Your task to perform on an android device: Show me popular videos on Youtube Image 0: 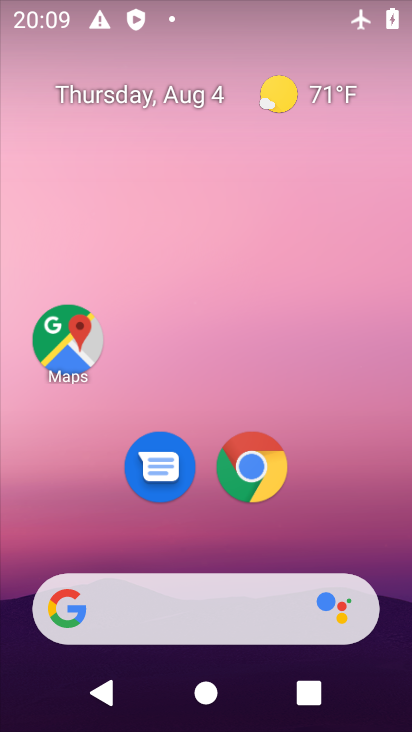
Step 0: press home button
Your task to perform on an android device: Show me popular videos on Youtube Image 1: 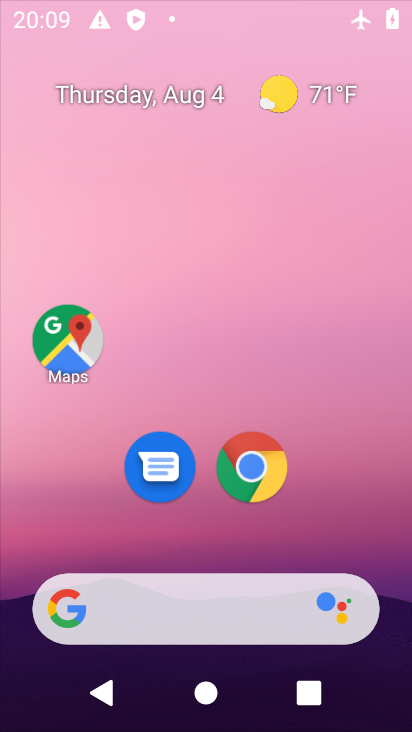
Step 1: drag from (293, 521) to (329, 45)
Your task to perform on an android device: Show me popular videos on Youtube Image 2: 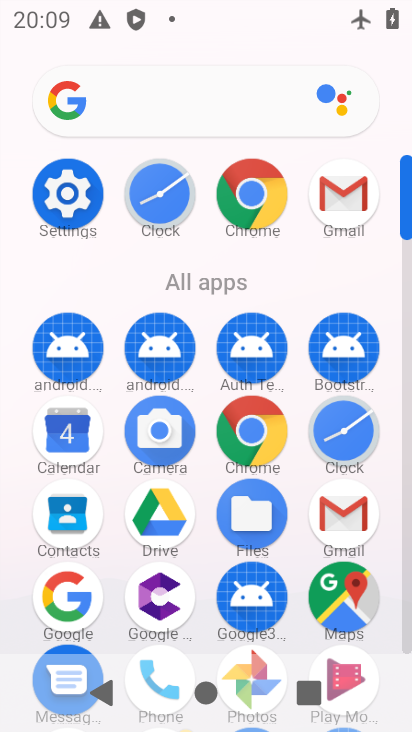
Step 2: drag from (308, 616) to (303, 172)
Your task to perform on an android device: Show me popular videos on Youtube Image 3: 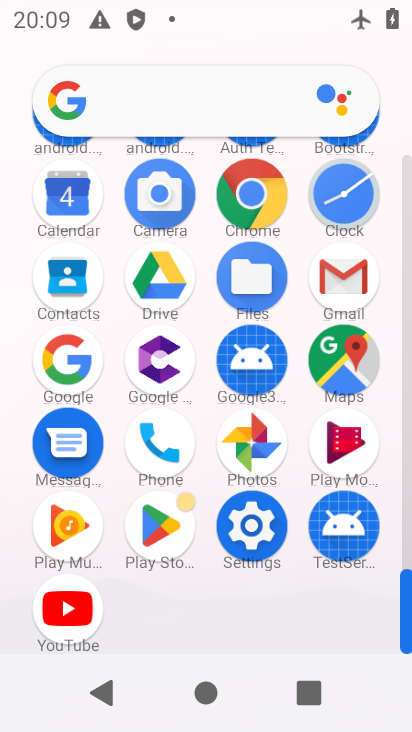
Step 3: click (49, 642)
Your task to perform on an android device: Show me popular videos on Youtube Image 4: 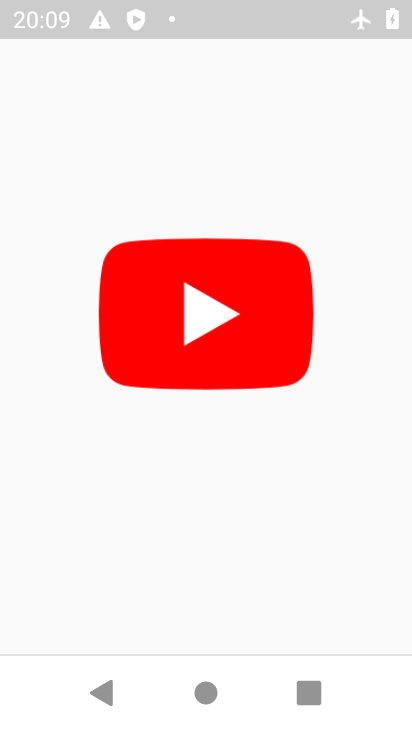
Step 4: click (210, 324)
Your task to perform on an android device: Show me popular videos on Youtube Image 5: 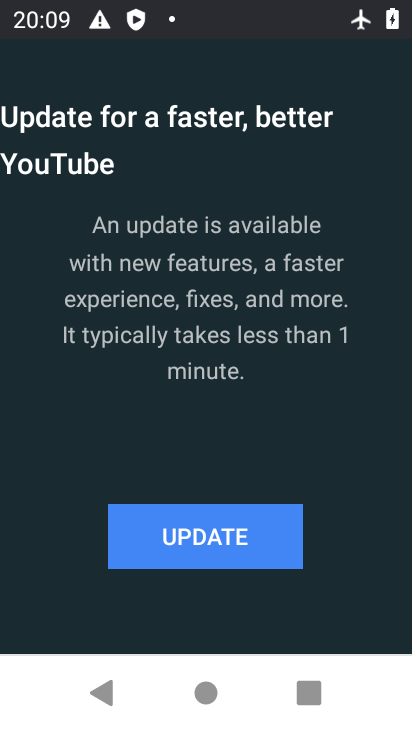
Step 5: click (197, 536)
Your task to perform on an android device: Show me popular videos on Youtube Image 6: 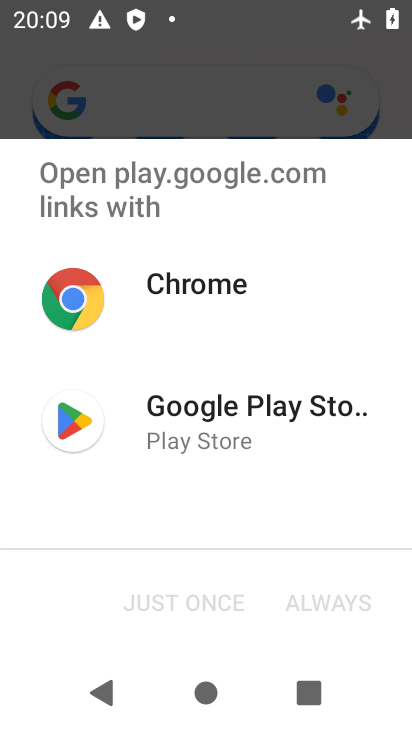
Step 6: click (238, 442)
Your task to perform on an android device: Show me popular videos on Youtube Image 7: 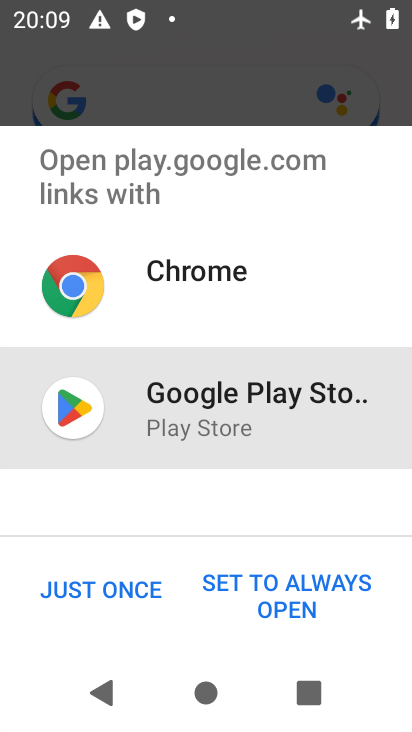
Step 7: click (133, 603)
Your task to perform on an android device: Show me popular videos on Youtube Image 8: 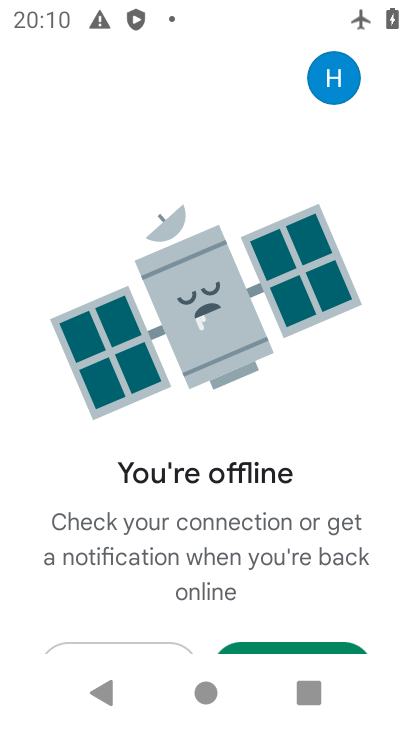
Step 8: drag from (230, 616) to (257, 275)
Your task to perform on an android device: Show me popular videos on Youtube Image 9: 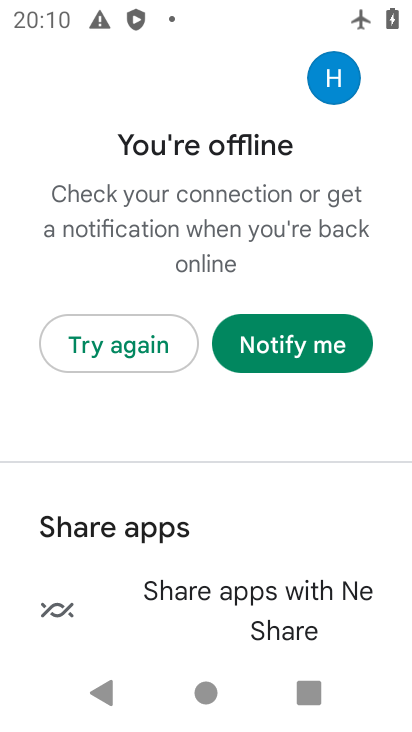
Step 9: press home button
Your task to perform on an android device: Show me popular videos on Youtube Image 10: 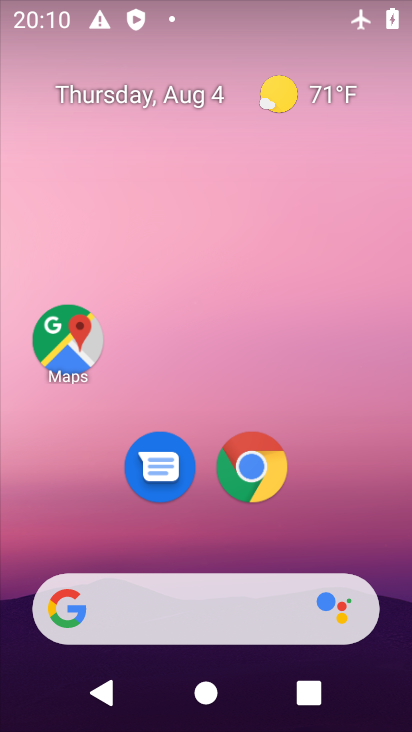
Step 10: drag from (204, 540) to (262, 66)
Your task to perform on an android device: Show me popular videos on Youtube Image 11: 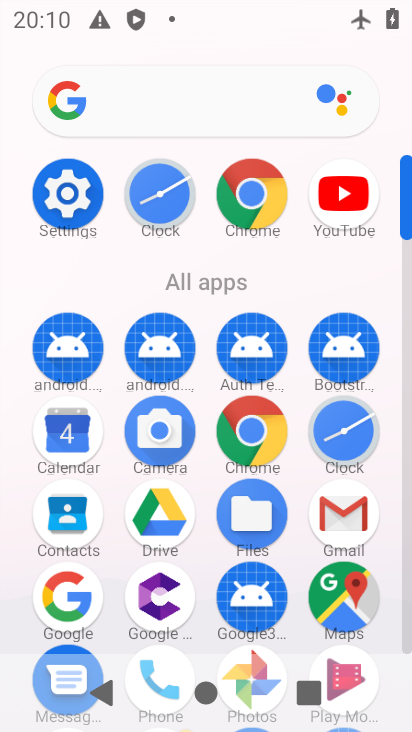
Step 11: click (352, 183)
Your task to perform on an android device: Show me popular videos on Youtube Image 12: 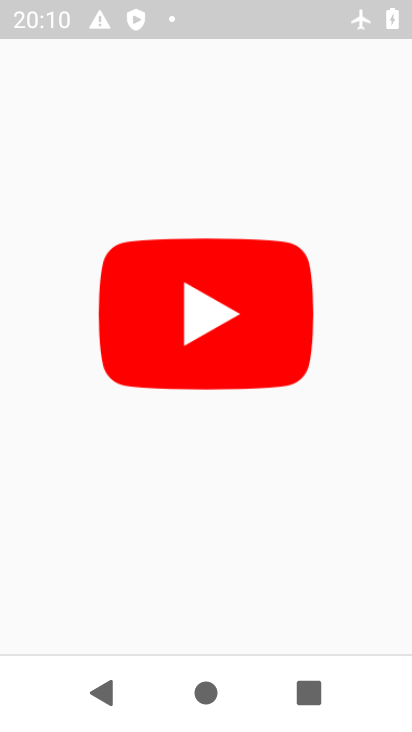
Step 12: drag from (354, 7) to (394, 558)
Your task to perform on an android device: Show me popular videos on Youtube Image 13: 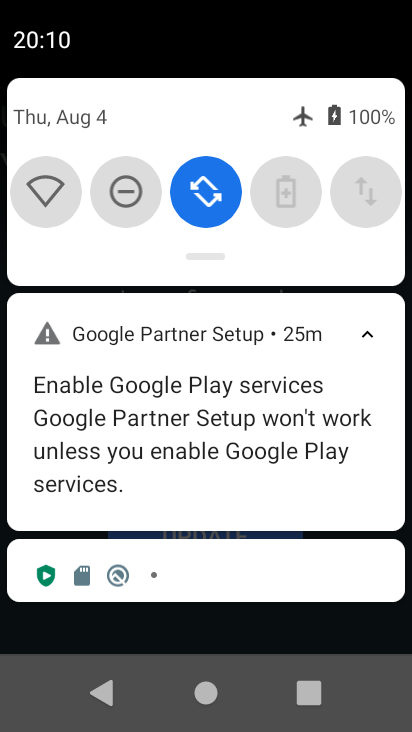
Step 13: drag from (204, 238) to (116, 721)
Your task to perform on an android device: Show me popular videos on Youtube Image 14: 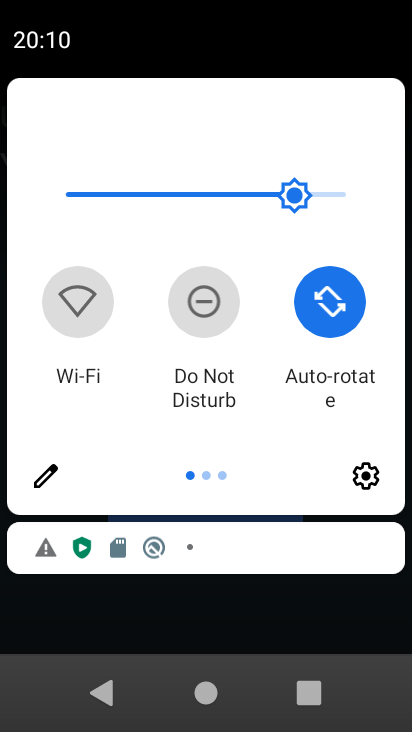
Step 14: drag from (404, 341) to (75, 277)
Your task to perform on an android device: Show me popular videos on Youtube Image 15: 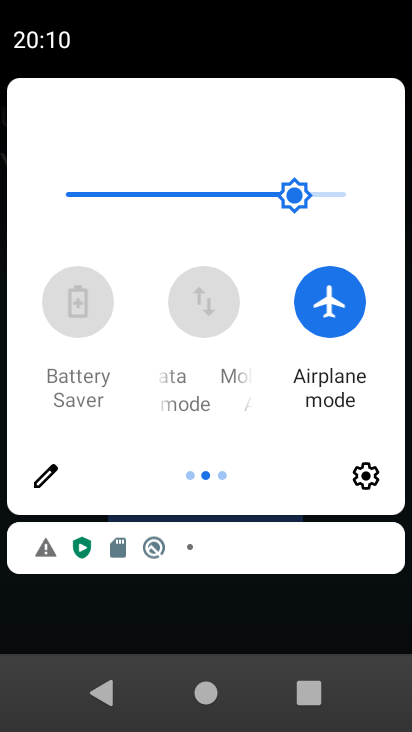
Step 15: click (338, 349)
Your task to perform on an android device: Show me popular videos on Youtube Image 16: 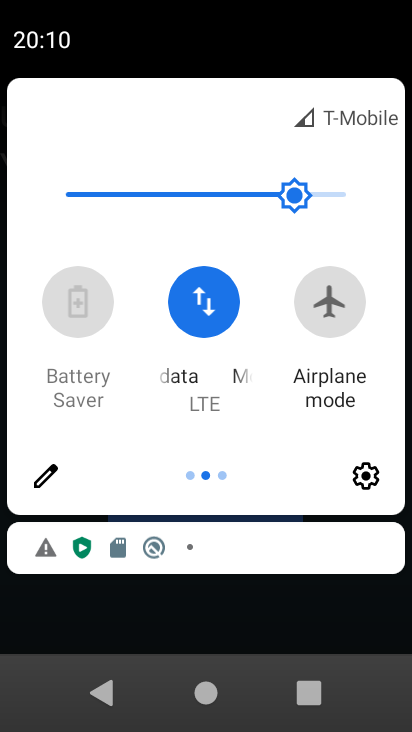
Step 16: drag from (245, 626) to (207, 121)
Your task to perform on an android device: Show me popular videos on Youtube Image 17: 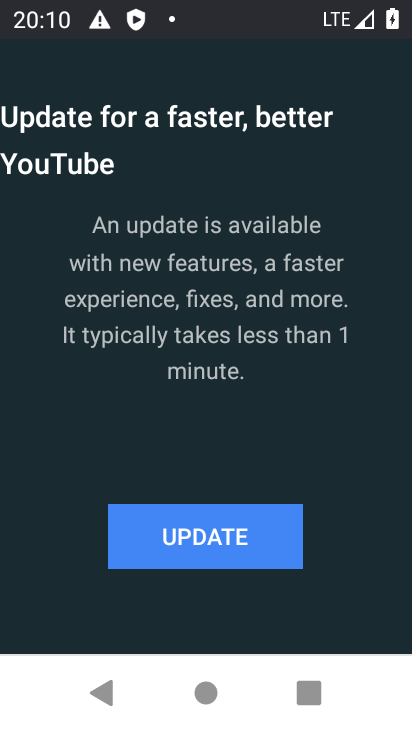
Step 17: click (281, 551)
Your task to perform on an android device: Show me popular videos on Youtube Image 18: 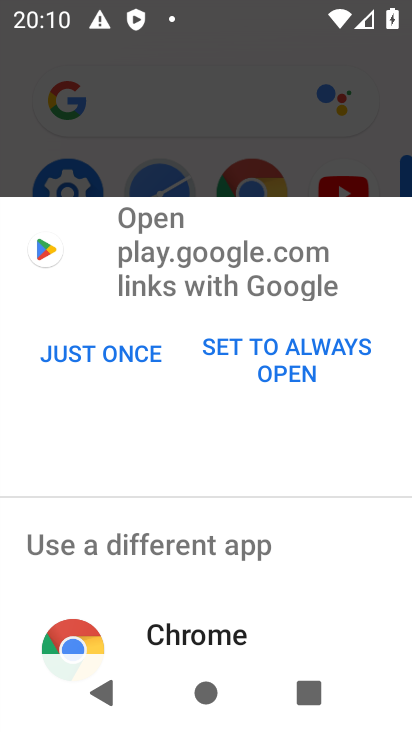
Step 18: click (77, 371)
Your task to perform on an android device: Show me popular videos on Youtube Image 19: 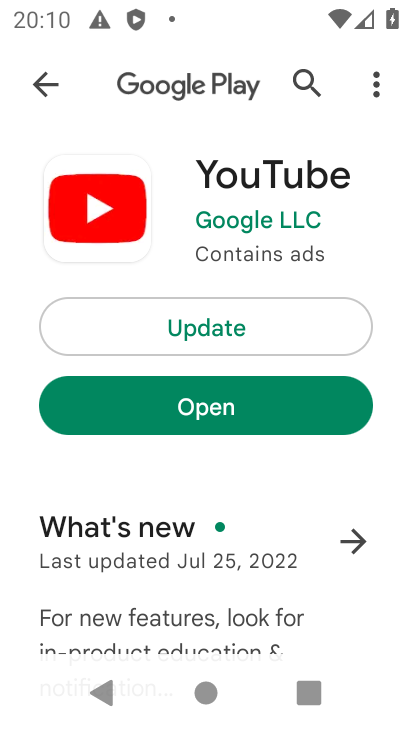
Step 19: click (229, 338)
Your task to perform on an android device: Show me popular videos on Youtube Image 20: 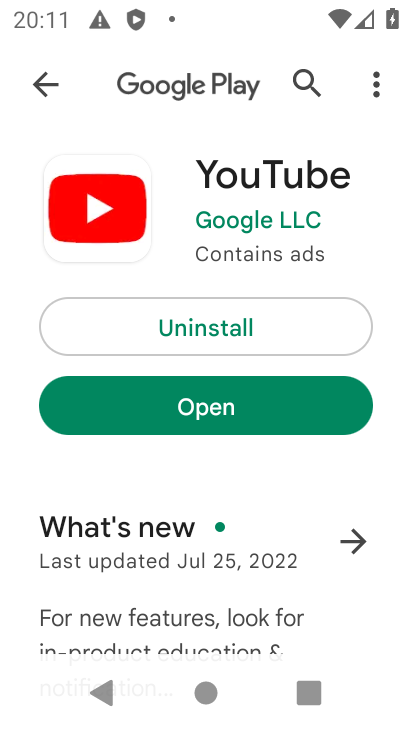
Step 20: click (210, 409)
Your task to perform on an android device: Show me popular videos on Youtube Image 21: 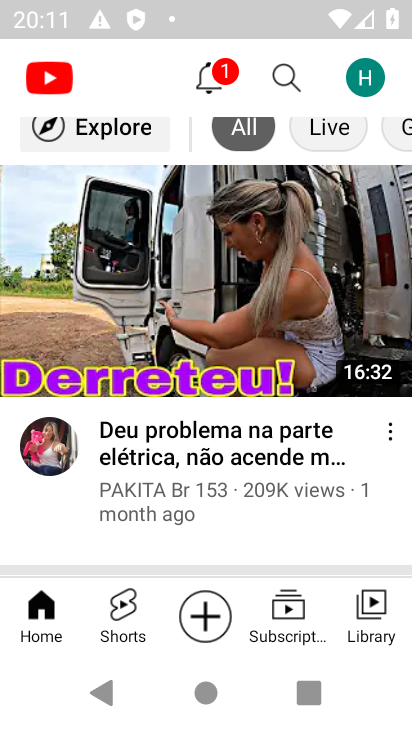
Step 21: click (286, 69)
Your task to perform on an android device: Show me popular videos on Youtube Image 22: 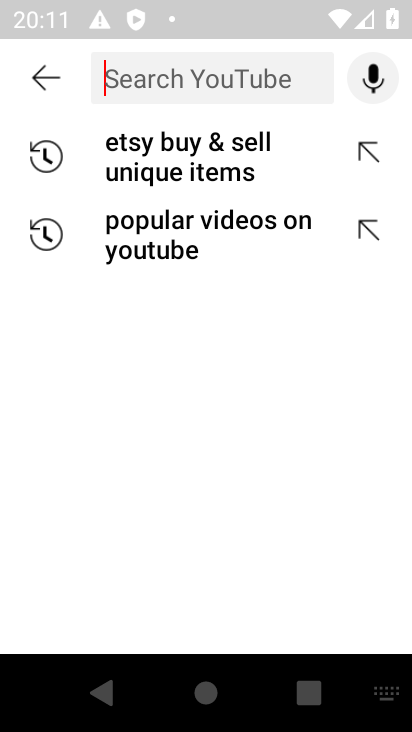
Step 22: type "popular videos on Youtube"
Your task to perform on an android device: Show me popular videos on Youtube Image 23: 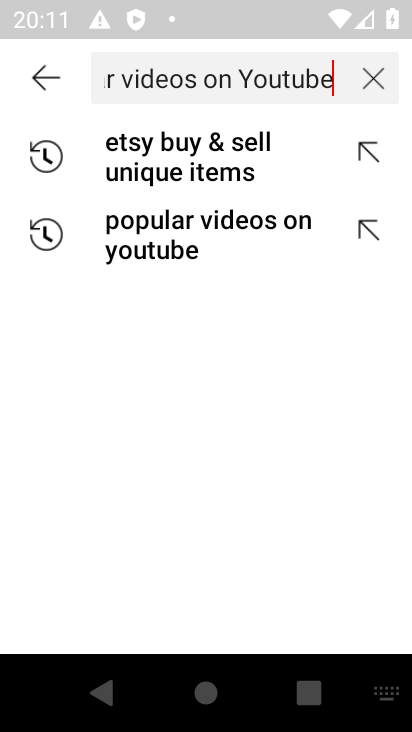
Step 23: type ""
Your task to perform on an android device: Show me popular videos on Youtube Image 24: 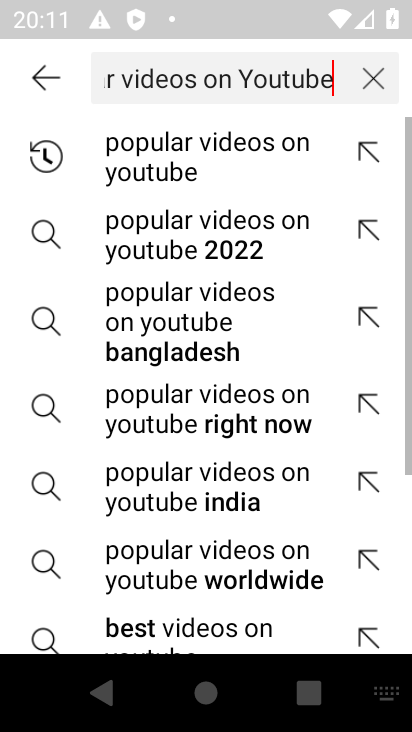
Step 24: click (142, 156)
Your task to perform on an android device: Show me popular videos on Youtube Image 25: 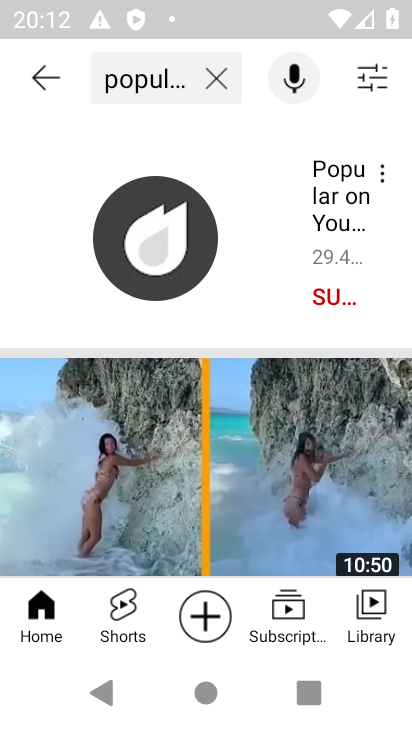
Step 25: press home button
Your task to perform on an android device: Show me popular videos on Youtube Image 26: 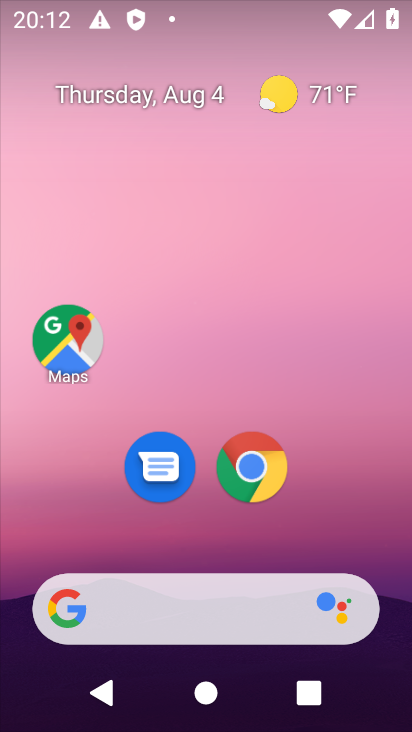
Step 26: drag from (205, 550) to (211, 122)
Your task to perform on an android device: Show me popular videos on Youtube Image 27: 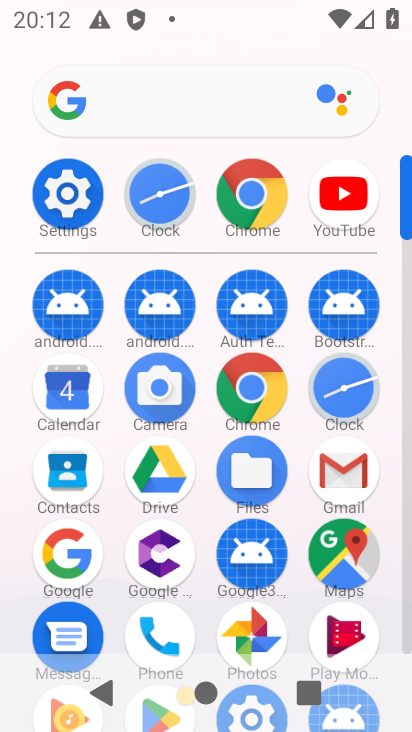
Step 27: click (357, 223)
Your task to perform on an android device: Show me popular videos on Youtube Image 28: 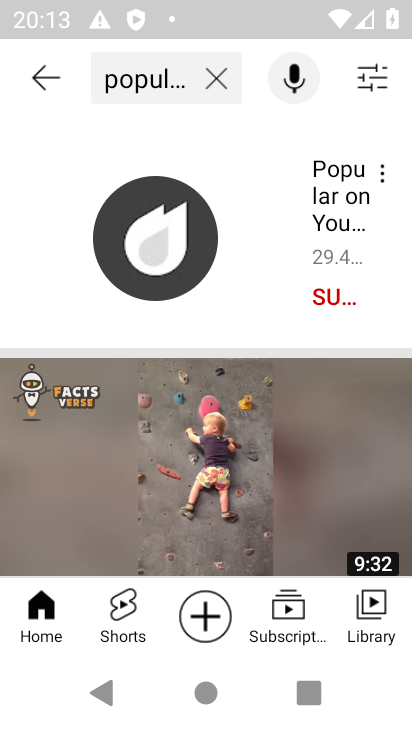
Step 28: task complete